Your task to perform on an android device: change keyboard looks Image 0: 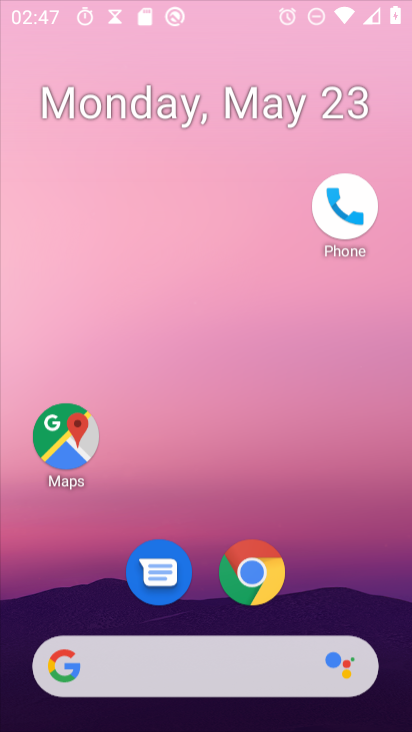
Step 0: press home button
Your task to perform on an android device: change keyboard looks Image 1: 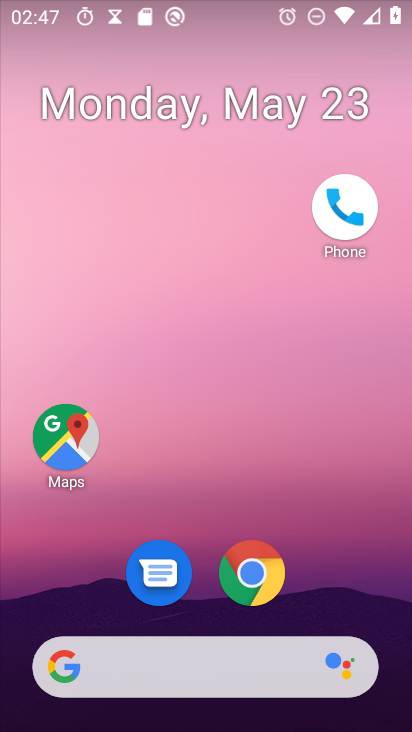
Step 1: drag from (175, 681) to (320, 255)
Your task to perform on an android device: change keyboard looks Image 2: 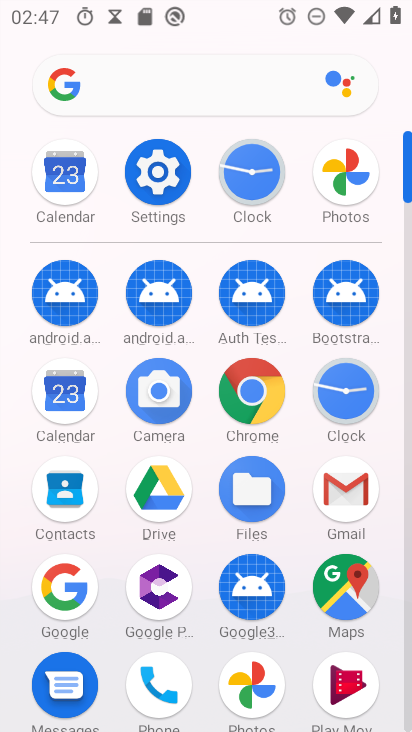
Step 2: click (156, 172)
Your task to perform on an android device: change keyboard looks Image 3: 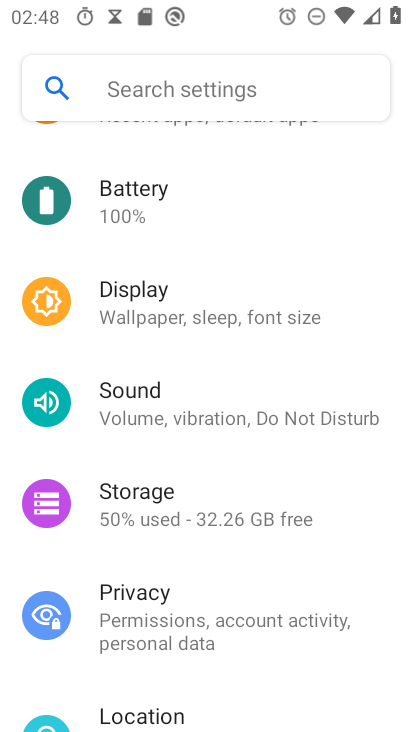
Step 3: drag from (186, 543) to (286, 245)
Your task to perform on an android device: change keyboard looks Image 4: 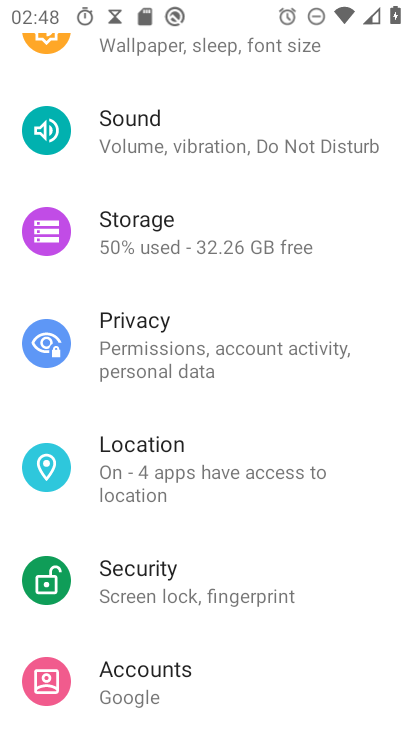
Step 4: drag from (232, 642) to (319, 197)
Your task to perform on an android device: change keyboard looks Image 5: 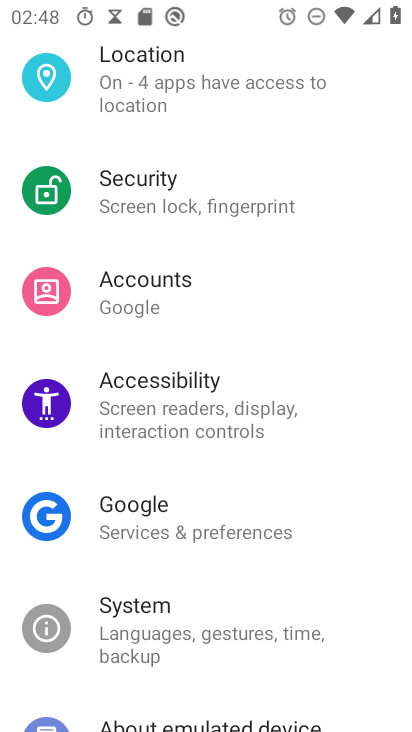
Step 5: click (187, 614)
Your task to perform on an android device: change keyboard looks Image 6: 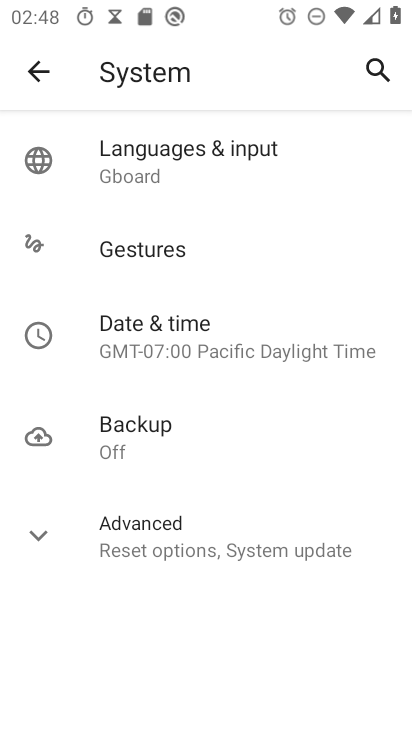
Step 6: click (192, 143)
Your task to perform on an android device: change keyboard looks Image 7: 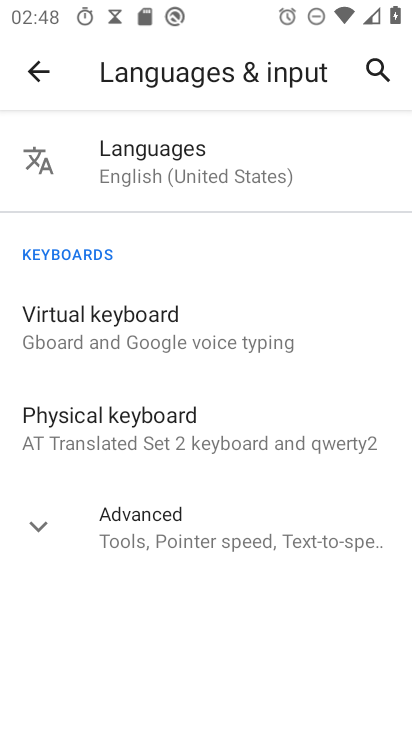
Step 7: click (138, 356)
Your task to perform on an android device: change keyboard looks Image 8: 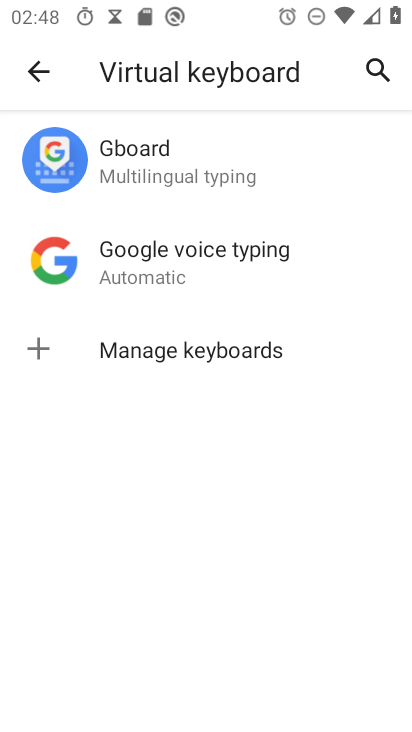
Step 8: click (170, 162)
Your task to perform on an android device: change keyboard looks Image 9: 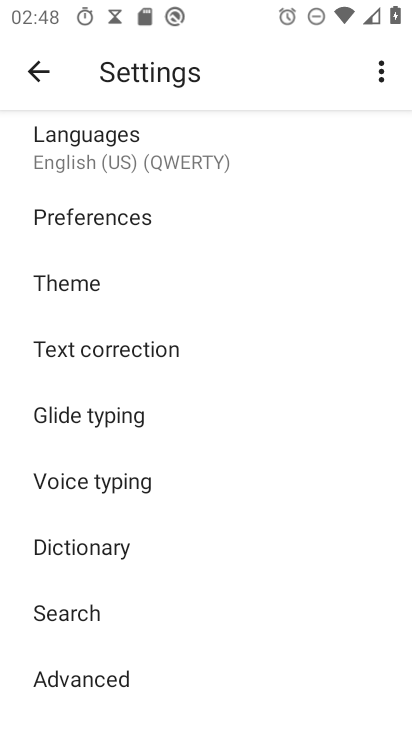
Step 9: click (96, 295)
Your task to perform on an android device: change keyboard looks Image 10: 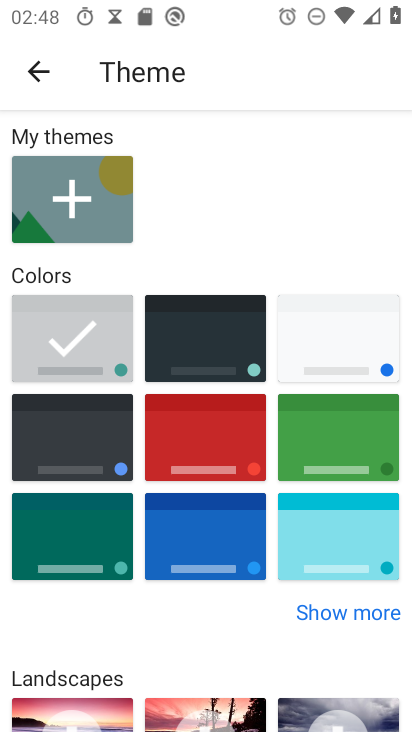
Step 10: click (317, 552)
Your task to perform on an android device: change keyboard looks Image 11: 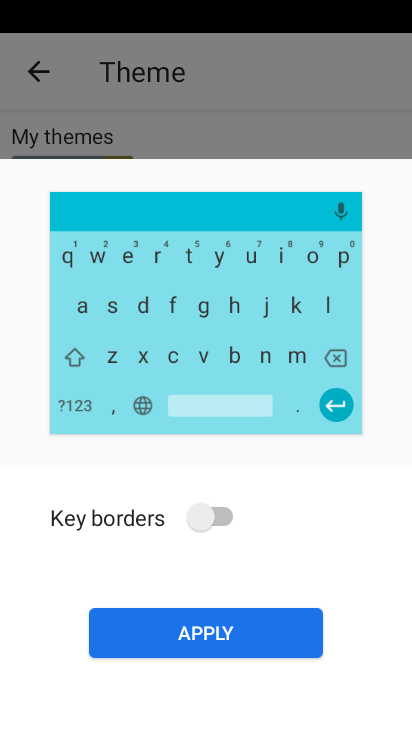
Step 11: click (209, 641)
Your task to perform on an android device: change keyboard looks Image 12: 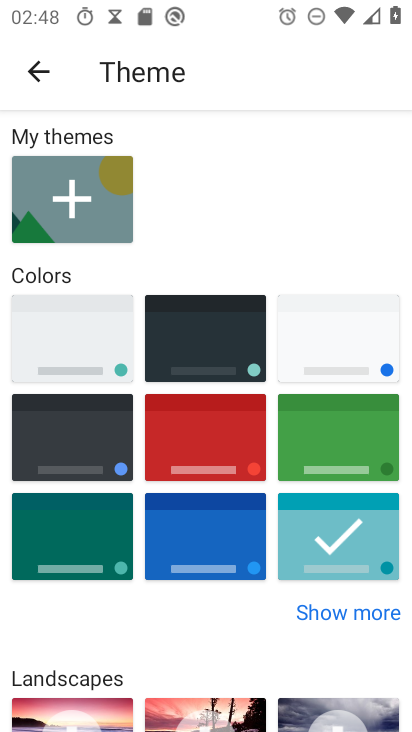
Step 12: task complete